Your task to perform on an android device: remove spam from my inbox in the gmail app Image 0: 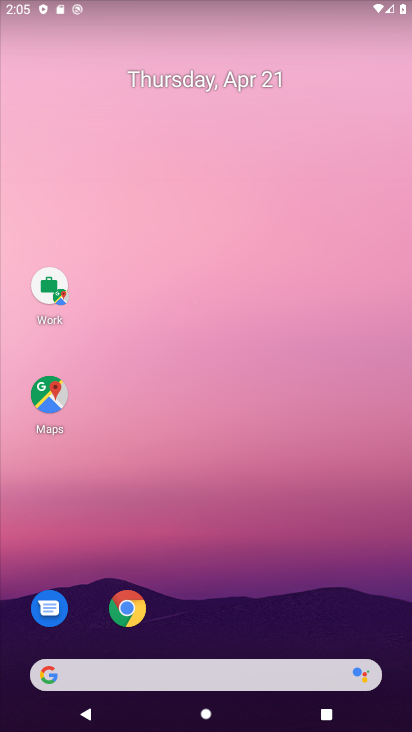
Step 0: drag from (215, 542) to (203, 226)
Your task to perform on an android device: remove spam from my inbox in the gmail app Image 1: 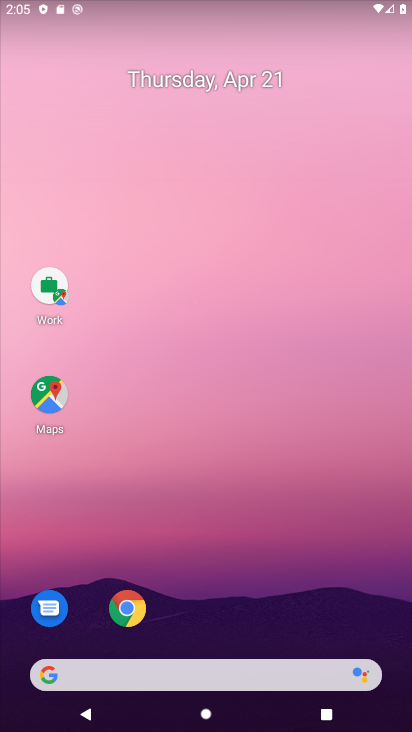
Step 1: drag from (291, 467) to (294, 206)
Your task to perform on an android device: remove spam from my inbox in the gmail app Image 2: 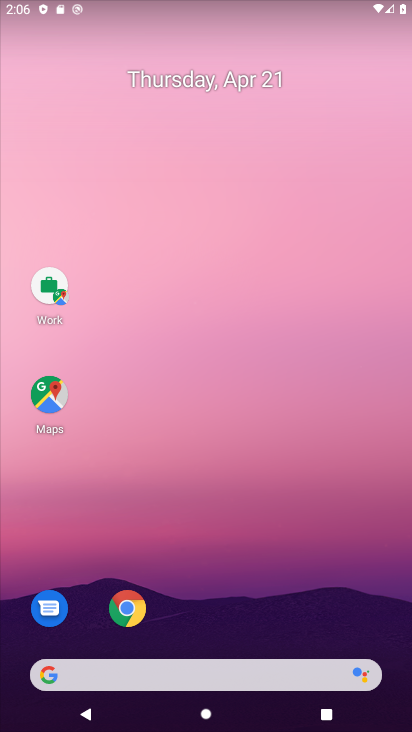
Step 2: drag from (247, 599) to (185, 134)
Your task to perform on an android device: remove spam from my inbox in the gmail app Image 3: 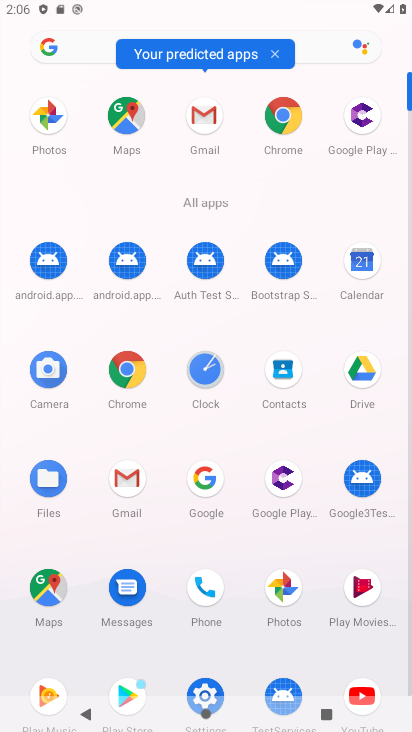
Step 3: click (199, 123)
Your task to perform on an android device: remove spam from my inbox in the gmail app Image 4: 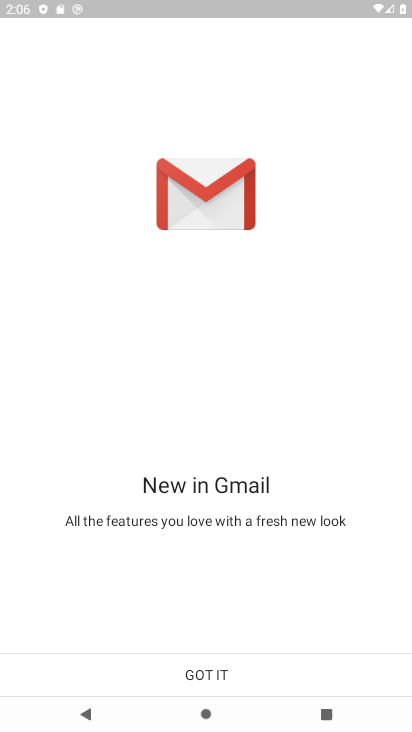
Step 4: click (227, 666)
Your task to perform on an android device: remove spam from my inbox in the gmail app Image 5: 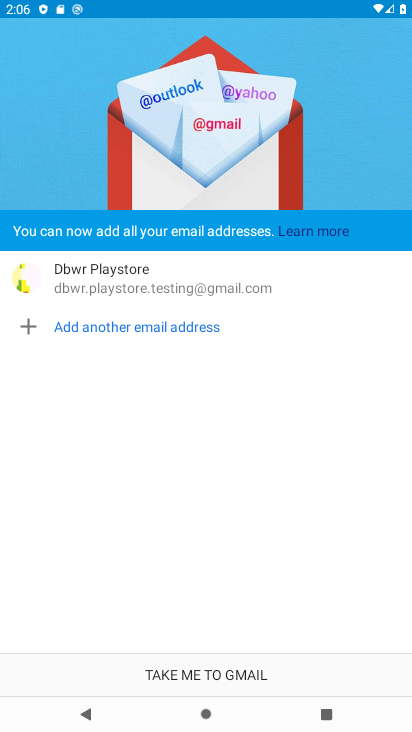
Step 5: click (218, 671)
Your task to perform on an android device: remove spam from my inbox in the gmail app Image 6: 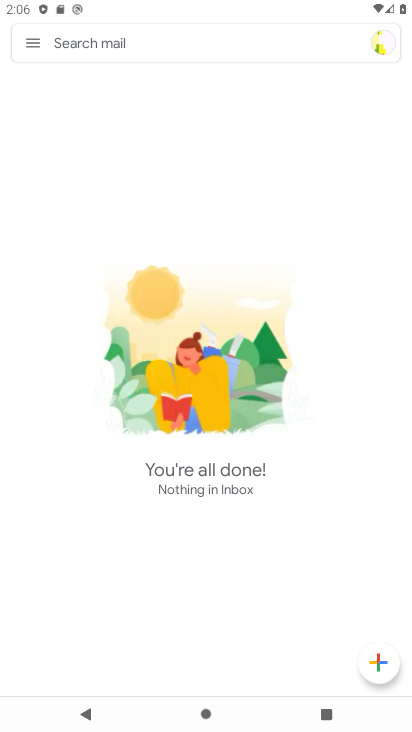
Step 6: click (32, 50)
Your task to perform on an android device: remove spam from my inbox in the gmail app Image 7: 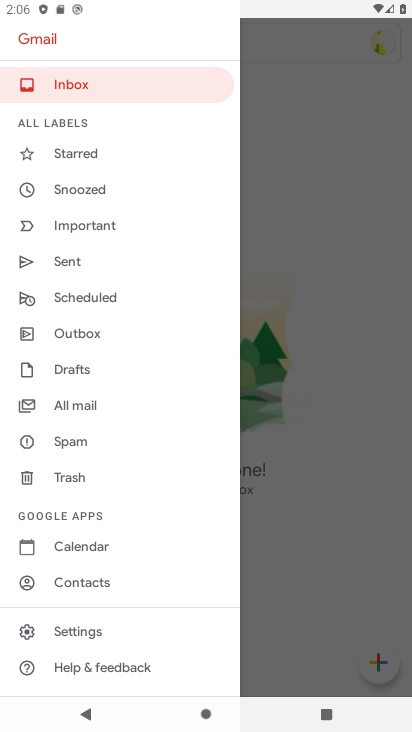
Step 7: click (66, 438)
Your task to perform on an android device: remove spam from my inbox in the gmail app Image 8: 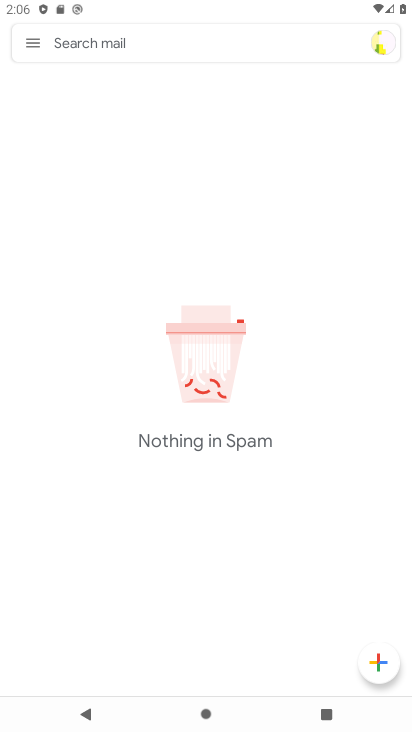
Step 8: task complete